Your task to perform on an android device: Open CNN.com Image 0: 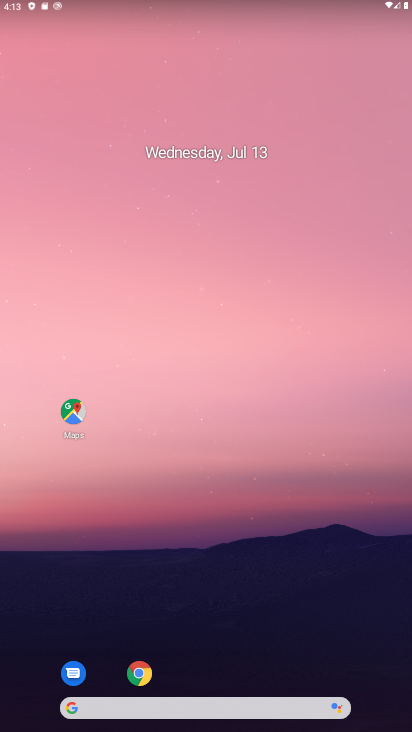
Step 0: press back button
Your task to perform on an android device: Open CNN.com Image 1: 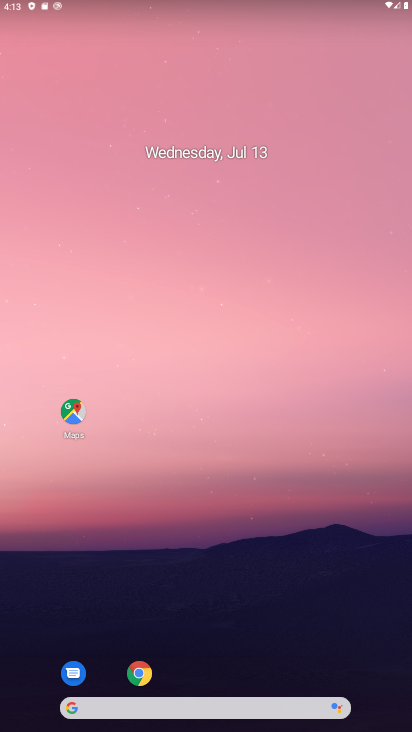
Step 1: drag from (245, 627) to (134, 53)
Your task to perform on an android device: Open CNN.com Image 2: 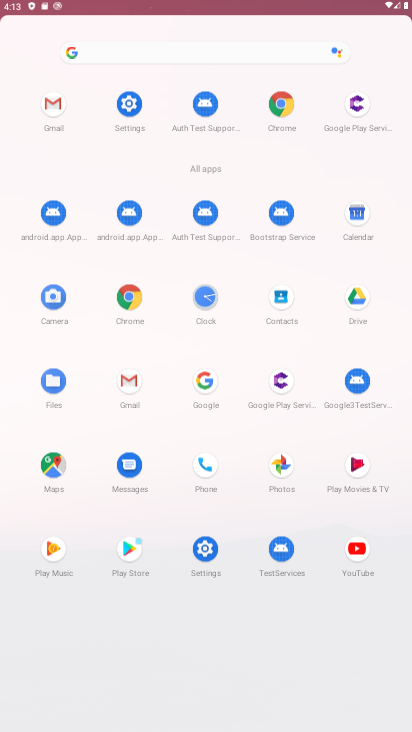
Step 2: click (156, 53)
Your task to perform on an android device: Open CNN.com Image 3: 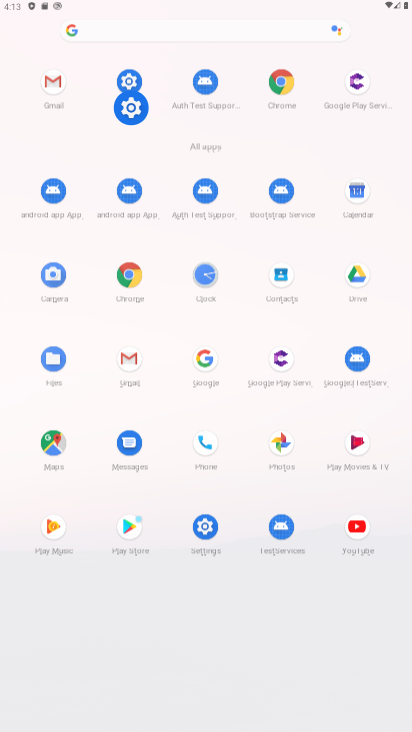
Step 3: drag from (217, 538) to (197, 48)
Your task to perform on an android device: Open CNN.com Image 4: 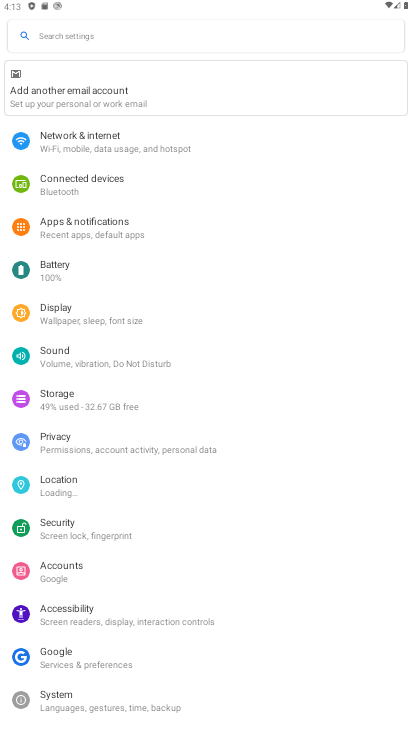
Step 4: press back button
Your task to perform on an android device: Open CNN.com Image 5: 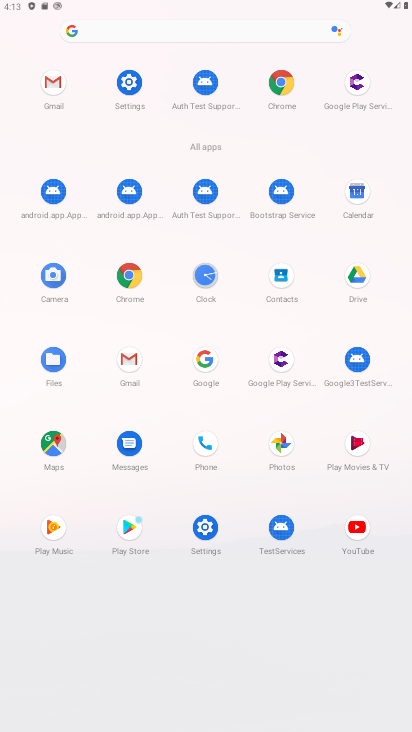
Step 5: click (133, 356)
Your task to perform on an android device: Open CNN.com Image 6: 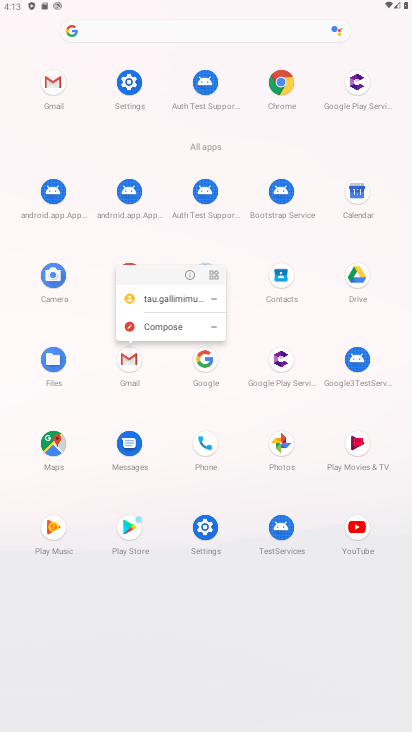
Step 6: click (132, 358)
Your task to perform on an android device: Open CNN.com Image 7: 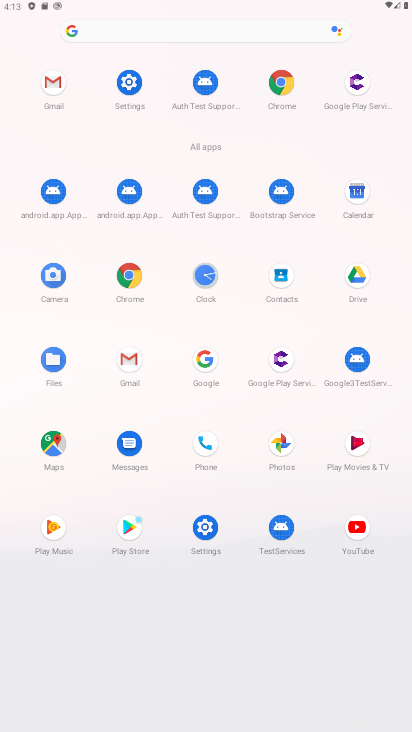
Step 7: click (132, 358)
Your task to perform on an android device: Open CNN.com Image 8: 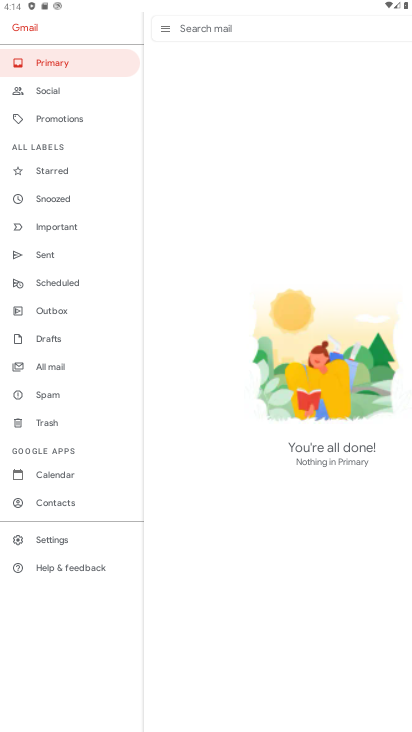
Step 8: click (56, 194)
Your task to perform on an android device: Open CNN.com Image 9: 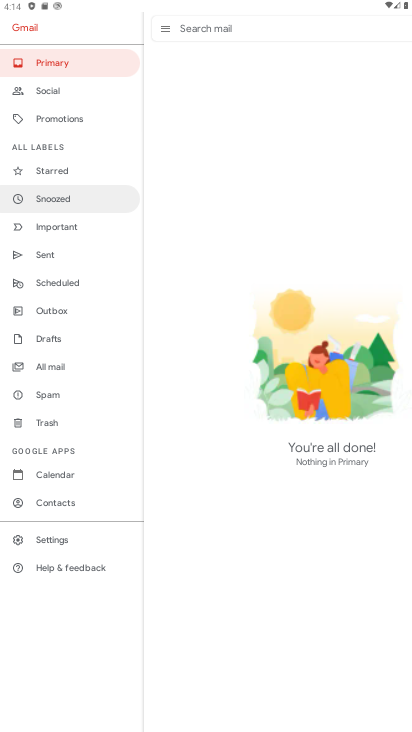
Step 9: click (57, 191)
Your task to perform on an android device: Open CNN.com Image 10: 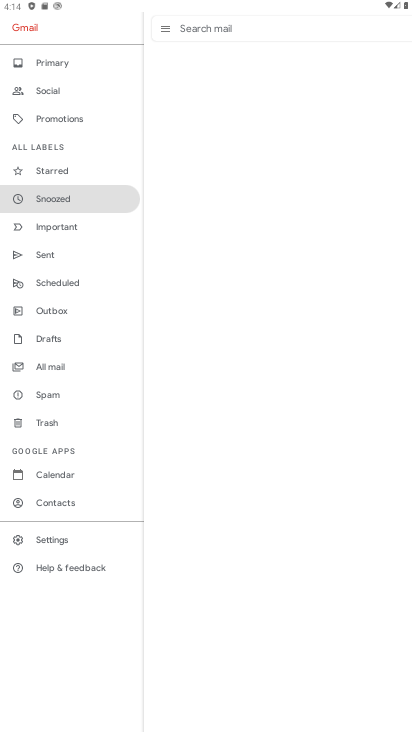
Step 10: click (66, 200)
Your task to perform on an android device: Open CNN.com Image 11: 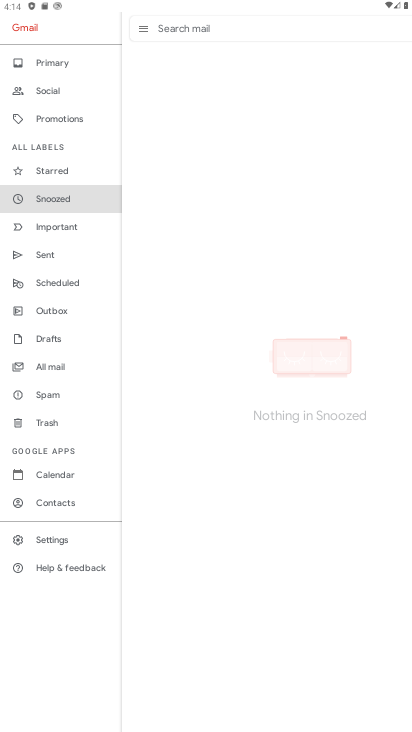
Step 11: click (66, 200)
Your task to perform on an android device: Open CNN.com Image 12: 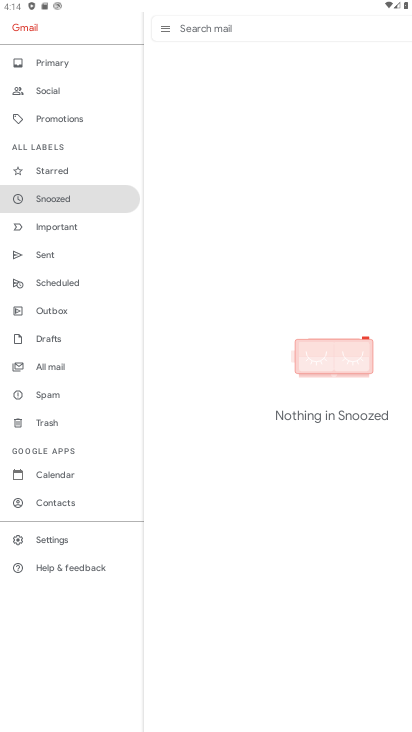
Step 12: task complete